Your task to perform on an android device: Search for sushi restaurants on Maps Image 0: 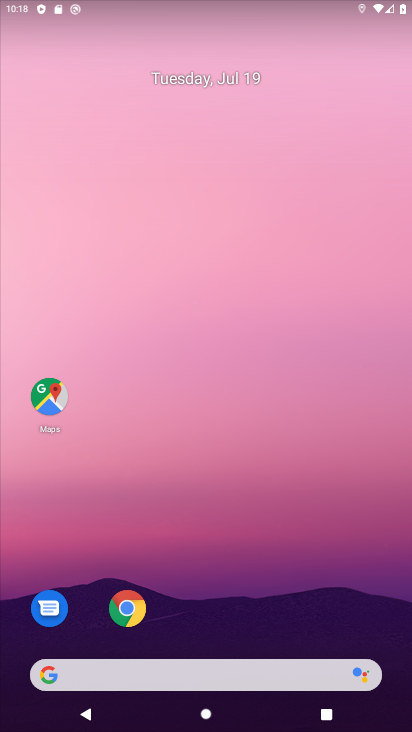
Step 0: drag from (224, 638) to (179, 410)
Your task to perform on an android device: Search for sushi restaurants on Maps Image 1: 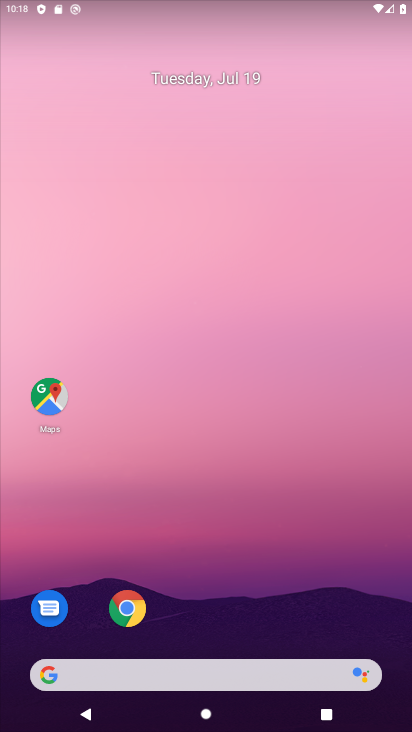
Step 1: click (46, 413)
Your task to perform on an android device: Search for sushi restaurants on Maps Image 2: 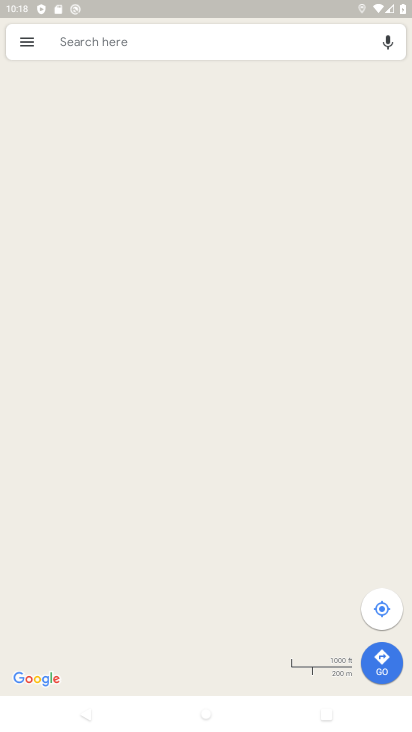
Step 2: click (119, 47)
Your task to perform on an android device: Search for sushi restaurants on Maps Image 3: 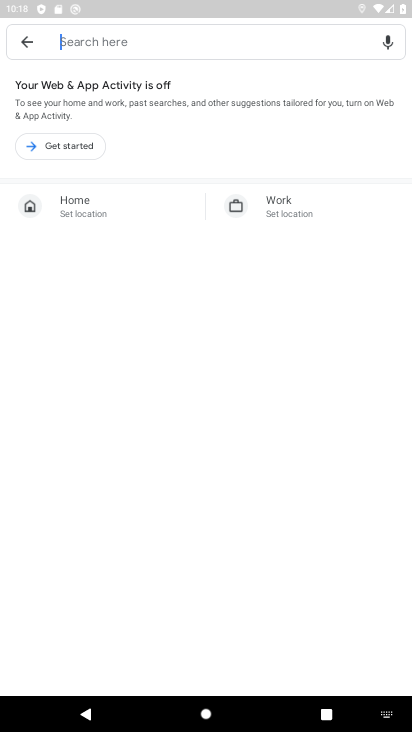
Step 3: click (66, 139)
Your task to perform on an android device: Search for sushi restaurants on Maps Image 4: 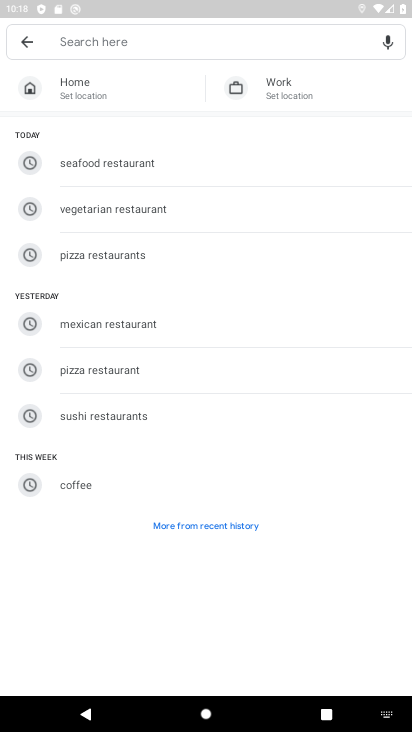
Step 4: click (75, 413)
Your task to perform on an android device: Search for sushi restaurants on Maps Image 5: 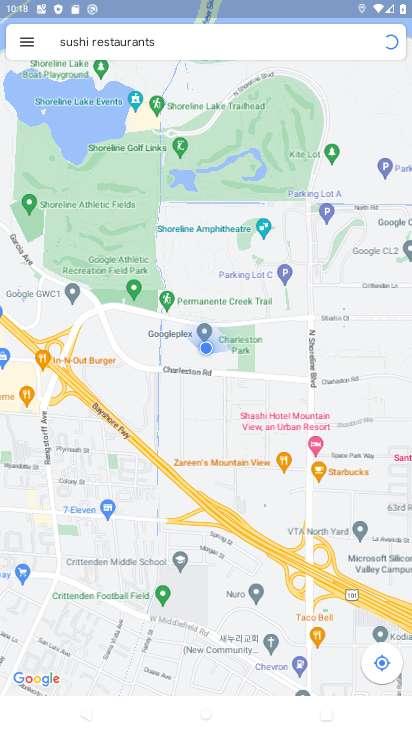
Step 5: task complete